Your task to perform on an android device: turn vacation reply on in the gmail app Image 0: 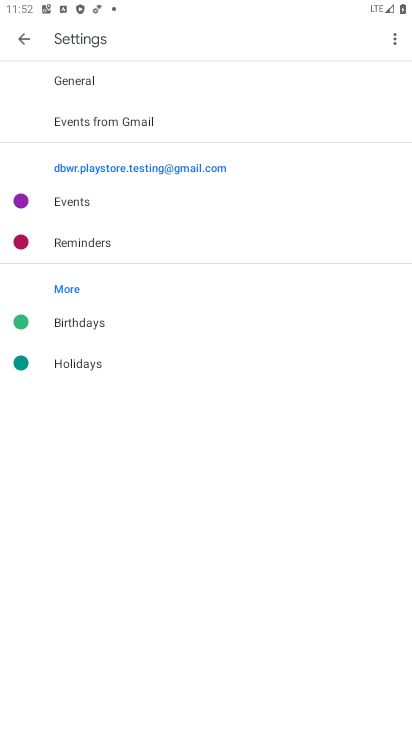
Step 0: press home button
Your task to perform on an android device: turn vacation reply on in the gmail app Image 1: 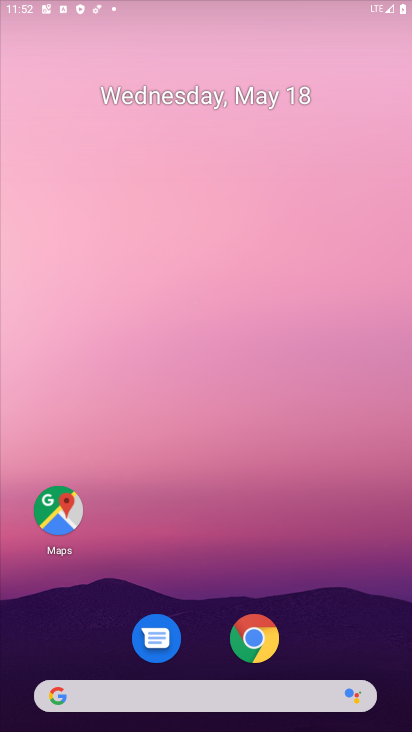
Step 1: drag from (336, 601) to (266, 62)
Your task to perform on an android device: turn vacation reply on in the gmail app Image 2: 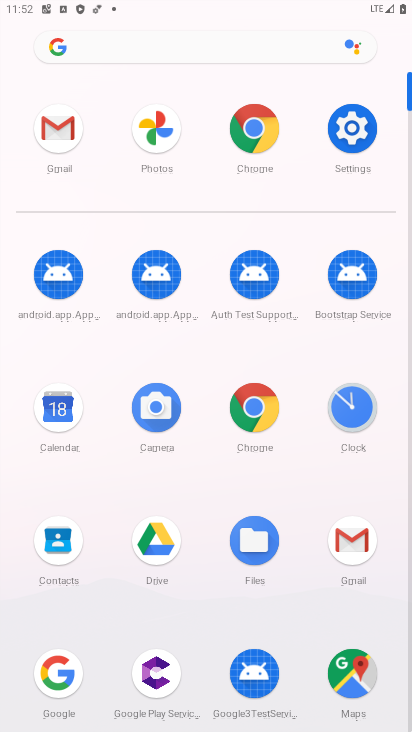
Step 2: click (361, 526)
Your task to perform on an android device: turn vacation reply on in the gmail app Image 3: 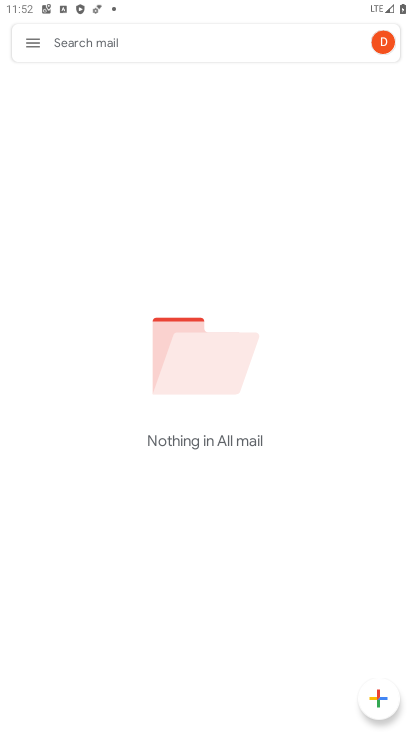
Step 3: click (33, 43)
Your task to perform on an android device: turn vacation reply on in the gmail app Image 4: 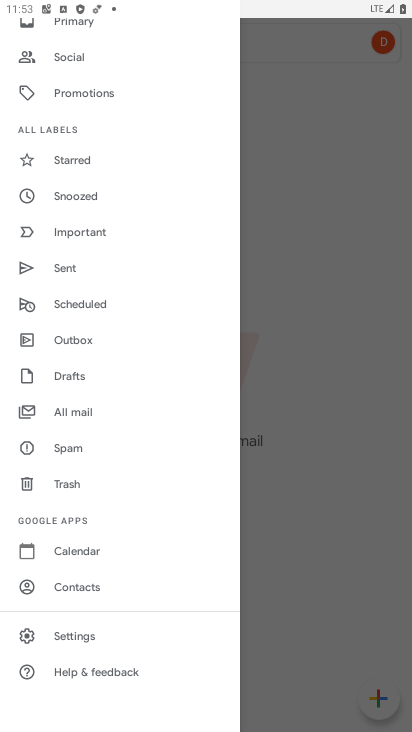
Step 4: click (98, 633)
Your task to perform on an android device: turn vacation reply on in the gmail app Image 5: 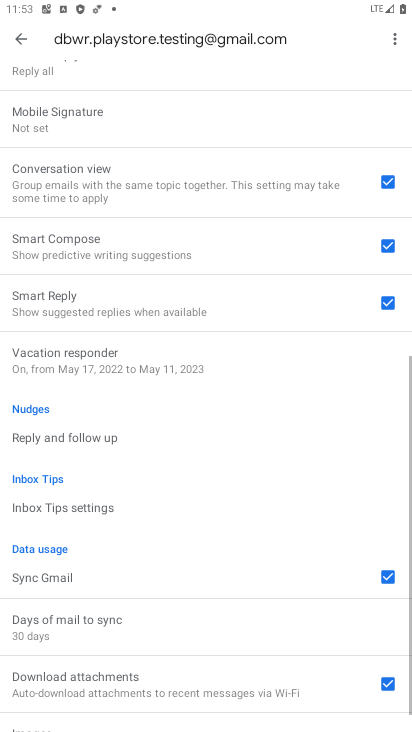
Step 5: drag from (100, 629) to (245, 161)
Your task to perform on an android device: turn vacation reply on in the gmail app Image 6: 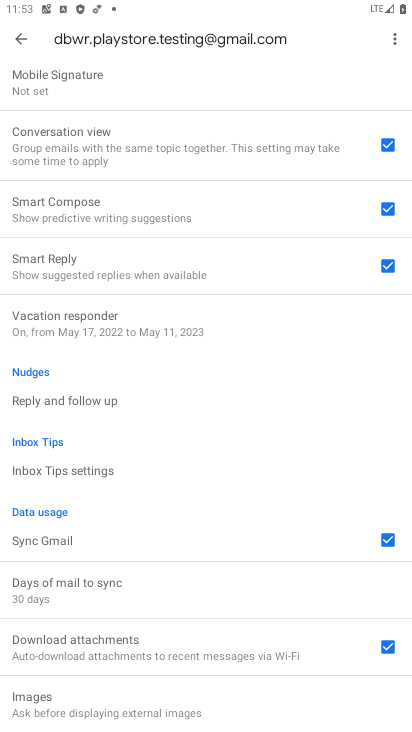
Step 6: drag from (225, 264) to (226, 658)
Your task to perform on an android device: turn vacation reply on in the gmail app Image 7: 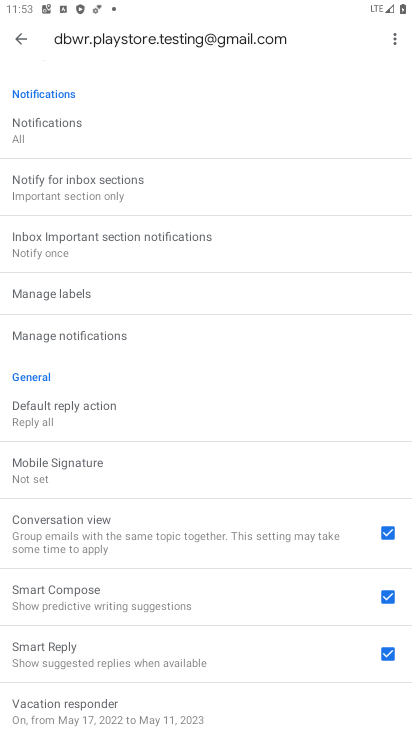
Step 7: drag from (102, 640) to (179, 487)
Your task to perform on an android device: turn vacation reply on in the gmail app Image 8: 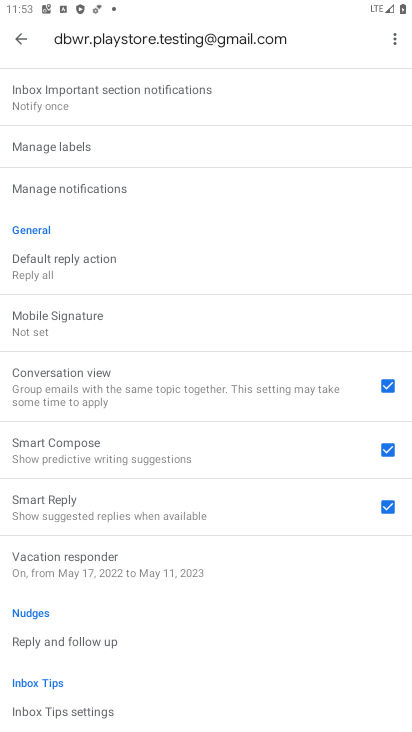
Step 8: click (167, 551)
Your task to perform on an android device: turn vacation reply on in the gmail app Image 9: 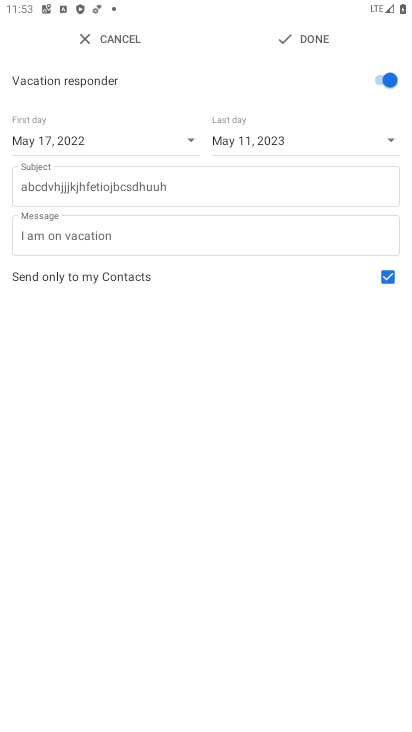
Step 9: task complete